Your task to perform on an android device: Search for Italian restaurants on Maps Image 0: 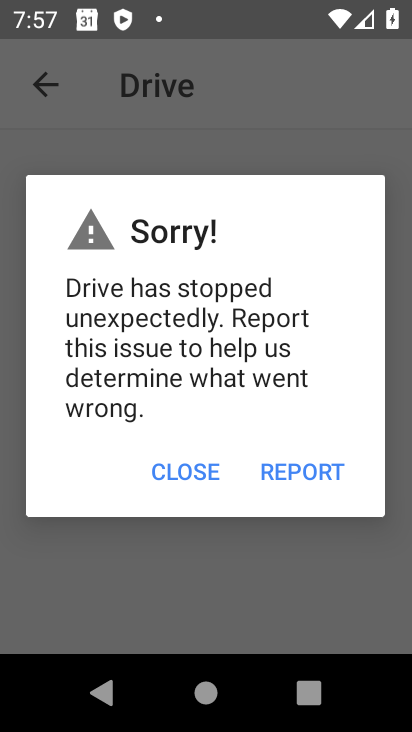
Step 0: click (180, 460)
Your task to perform on an android device: Search for Italian restaurants on Maps Image 1: 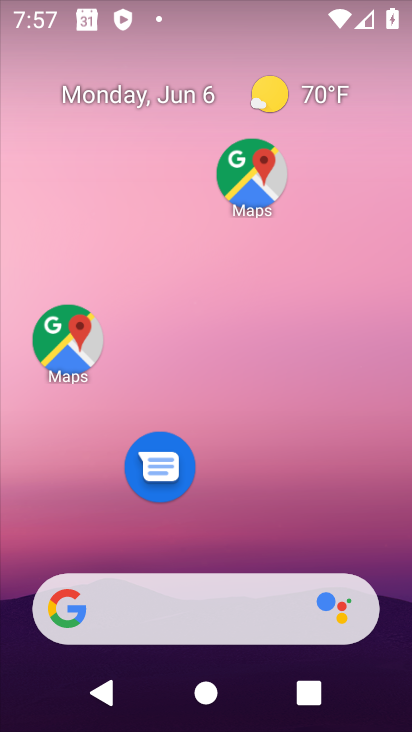
Step 1: drag from (329, 691) to (243, 47)
Your task to perform on an android device: Search for Italian restaurants on Maps Image 2: 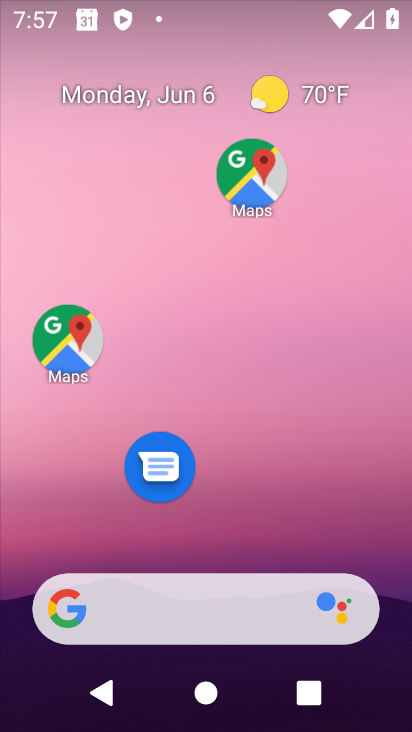
Step 2: drag from (216, 658) to (216, 174)
Your task to perform on an android device: Search for Italian restaurants on Maps Image 3: 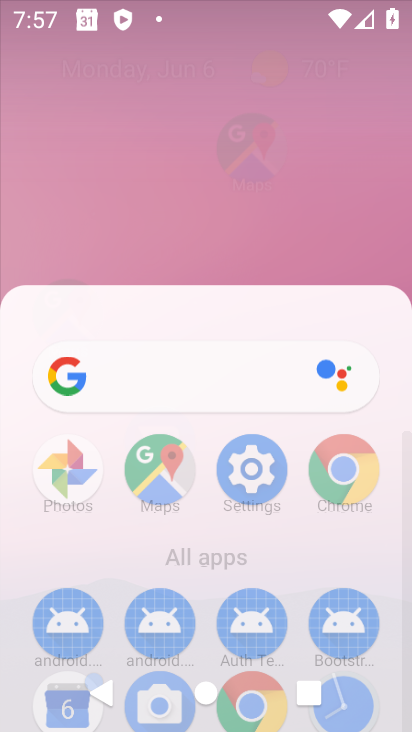
Step 3: drag from (275, 570) to (237, 167)
Your task to perform on an android device: Search for Italian restaurants on Maps Image 4: 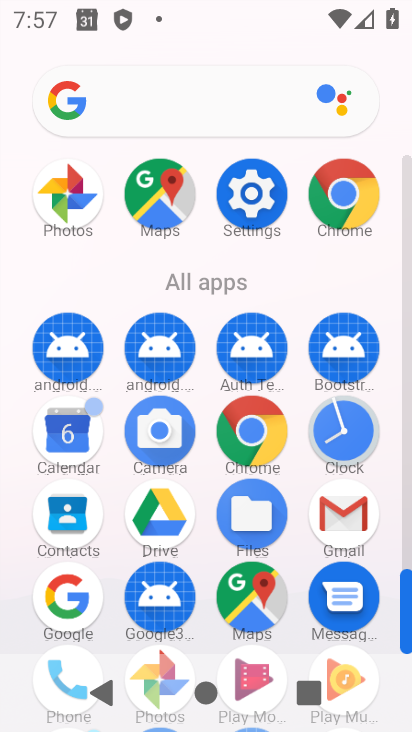
Step 4: click (183, 261)
Your task to perform on an android device: Search for Italian restaurants on Maps Image 5: 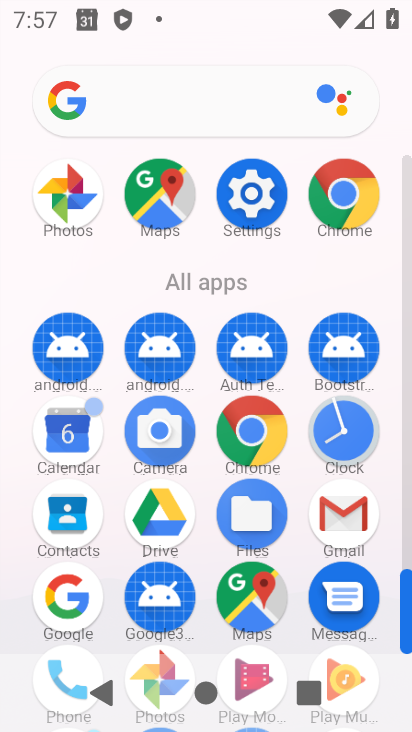
Step 5: drag from (225, 251) to (173, 240)
Your task to perform on an android device: Search for Italian restaurants on Maps Image 6: 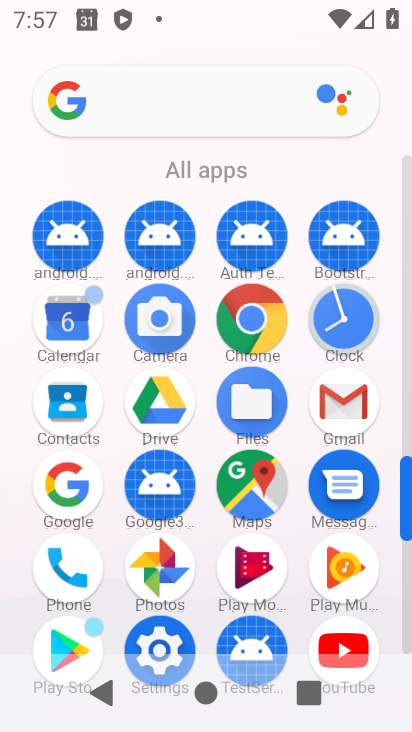
Step 6: click (260, 487)
Your task to perform on an android device: Search for Italian restaurants on Maps Image 7: 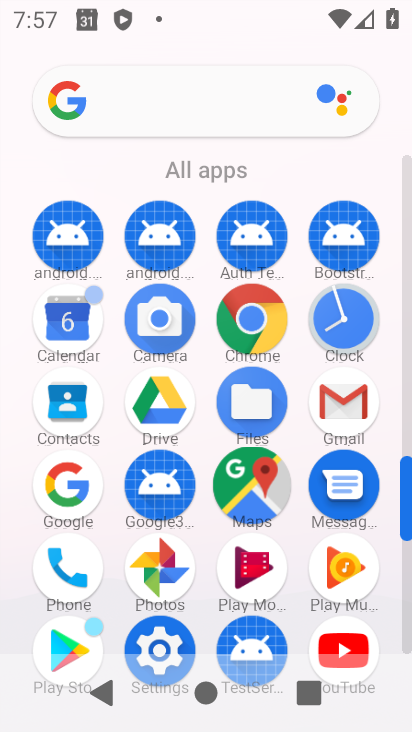
Step 7: click (260, 487)
Your task to perform on an android device: Search for Italian restaurants on Maps Image 8: 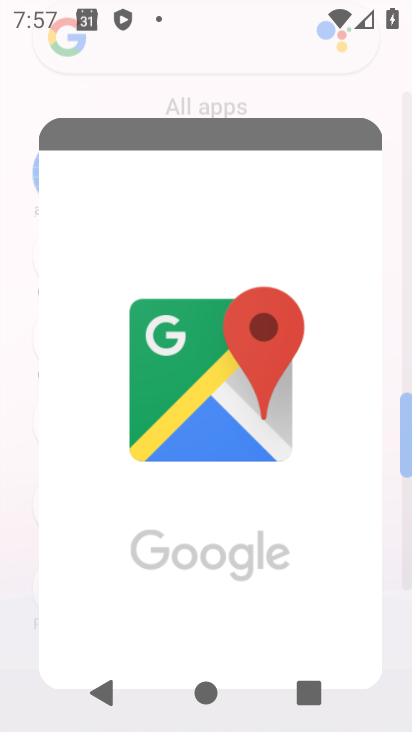
Step 8: click (260, 487)
Your task to perform on an android device: Search for Italian restaurants on Maps Image 9: 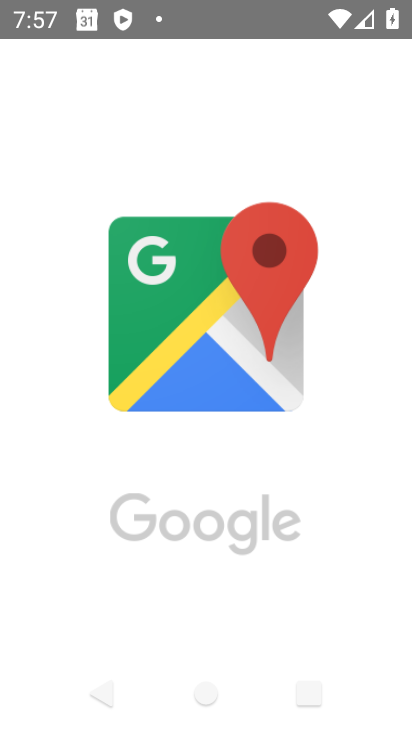
Step 9: click (260, 487)
Your task to perform on an android device: Search for Italian restaurants on Maps Image 10: 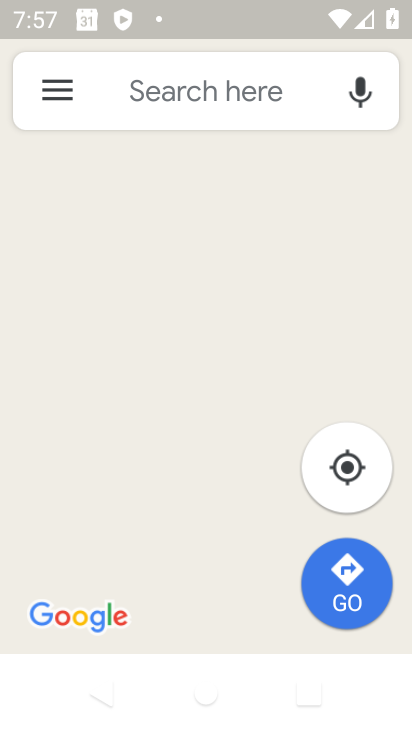
Step 10: click (138, 108)
Your task to perform on an android device: Search for Italian restaurants on Maps Image 11: 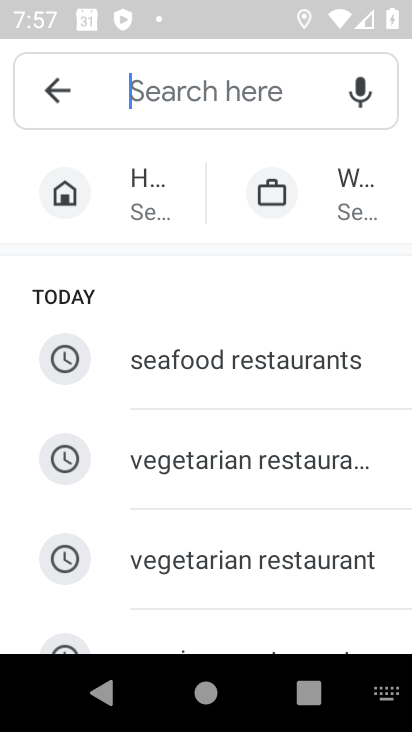
Step 11: type "italian restaurants"
Your task to perform on an android device: Search for Italian restaurants on Maps Image 12: 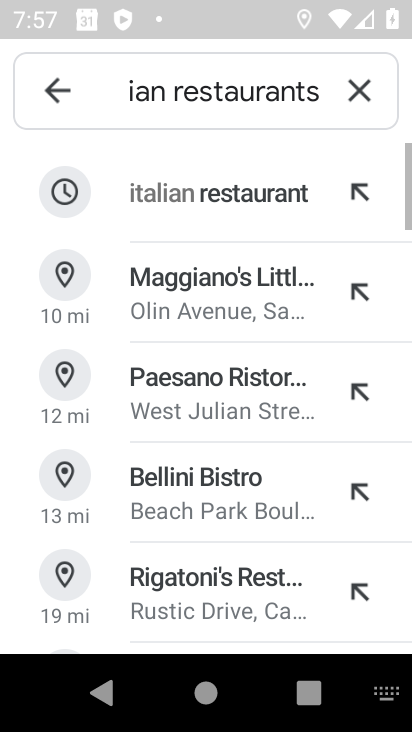
Step 12: click (233, 191)
Your task to perform on an android device: Search for Italian restaurants on Maps Image 13: 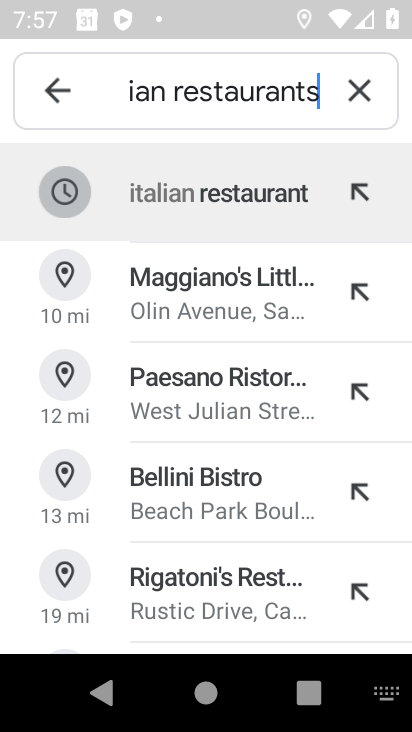
Step 13: click (233, 191)
Your task to perform on an android device: Search for Italian restaurants on Maps Image 14: 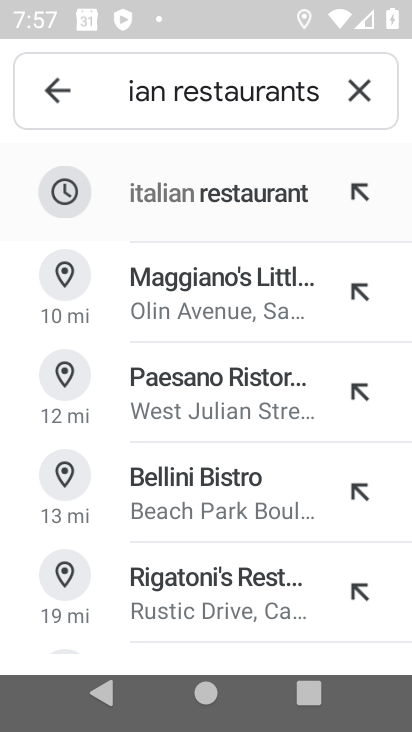
Step 14: click (232, 191)
Your task to perform on an android device: Search for Italian restaurants on Maps Image 15: 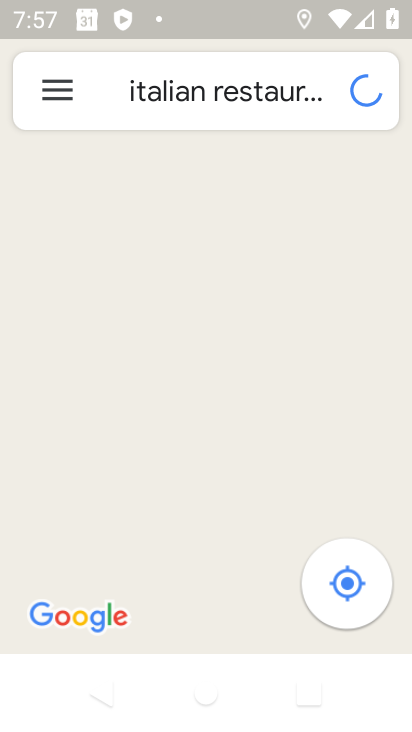
Step 15: click (238, 195)
Your task to perform on an android device: Search for Italian restaurants on Maps Image 16: 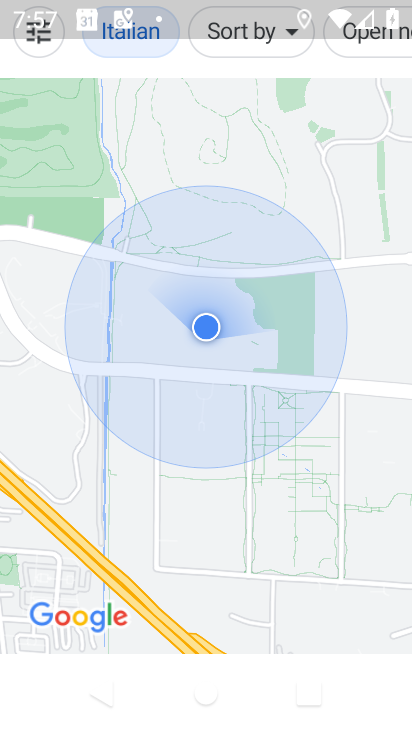
Step 16: task complete